Your task to perform on an android device: check storage Image 0: 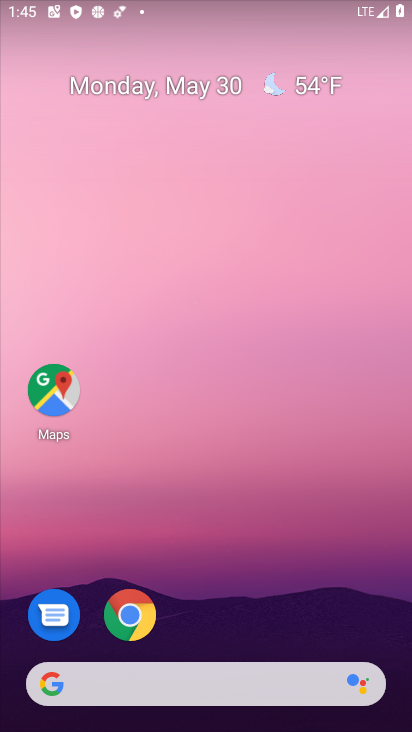
Step 0: drag from (330, 599) to (258, 148)
Your task to perform on an android device: check storage Image 1: 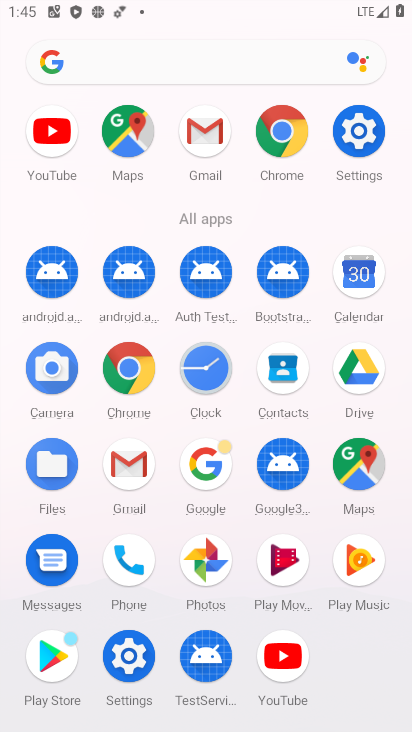
Step 1: click (345, 137)
Your task to perform on an android device: check storage Image 2: 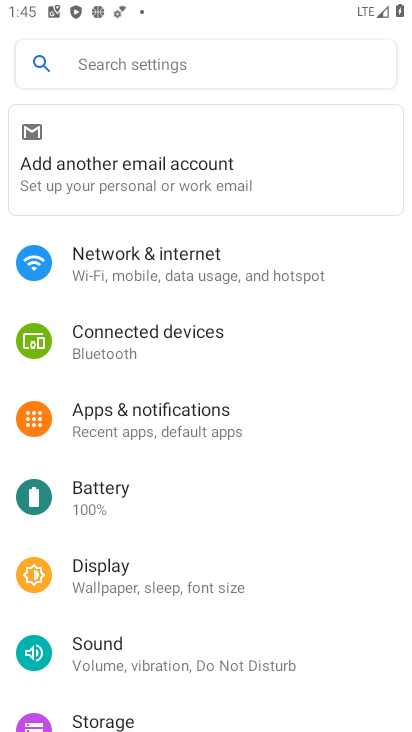
Step 2: drag from (107, 708) to (108, 434)
Your task to perform on an android device: check storage Image 3: 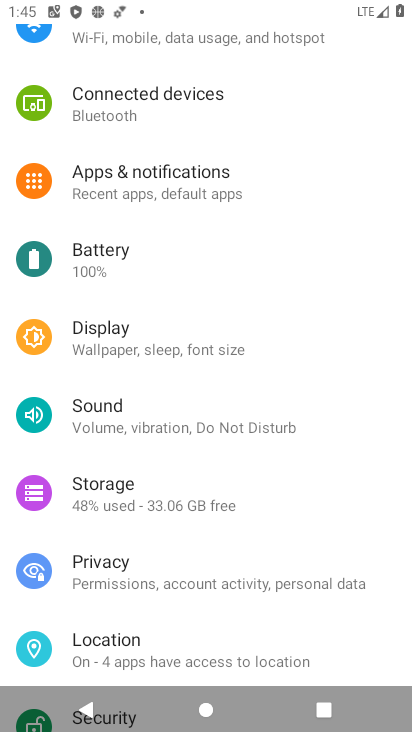
Step 3: click (105, 510)
Your task to perform on an android device: check storage Image 4: 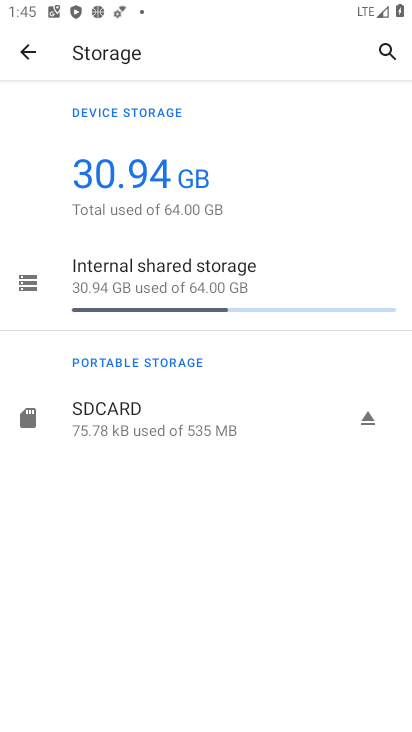
Step 4: task complete